Your task to perform on an android device: Open network settings Image 0: 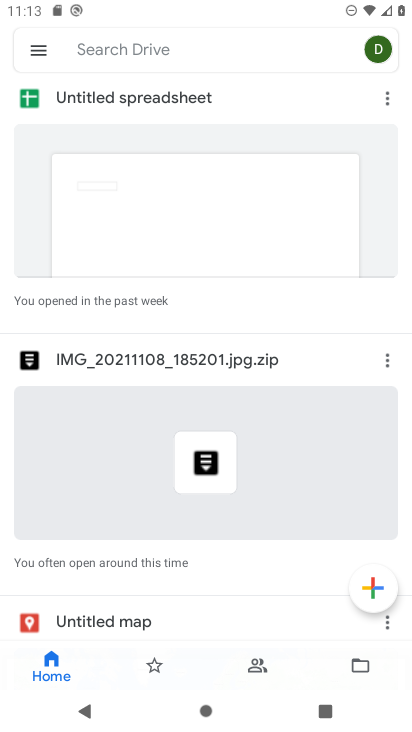
Step 0: press home button
Your task to perform on an android device: Open network settings Image 1: 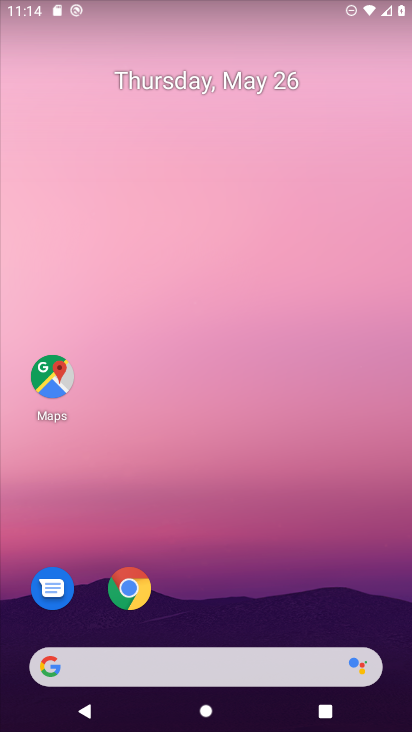
Step 1: drag from (382, 627) to (282, 72)
Your task to perform on an android device: Open network settings Image 2: 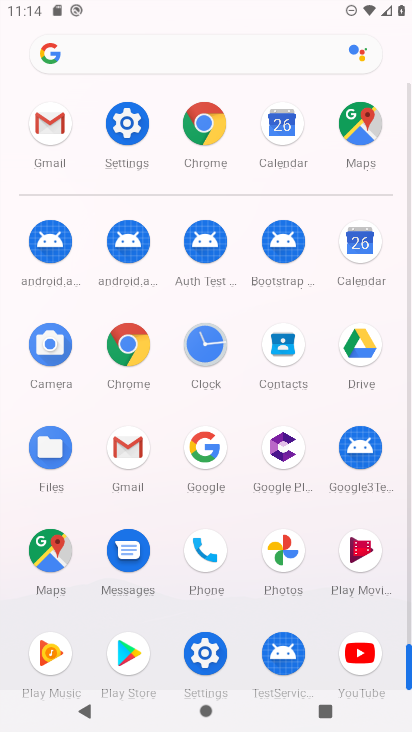
Step 2: click (408, 631)
Your task to perform on an android device: Open network settings Image 3: 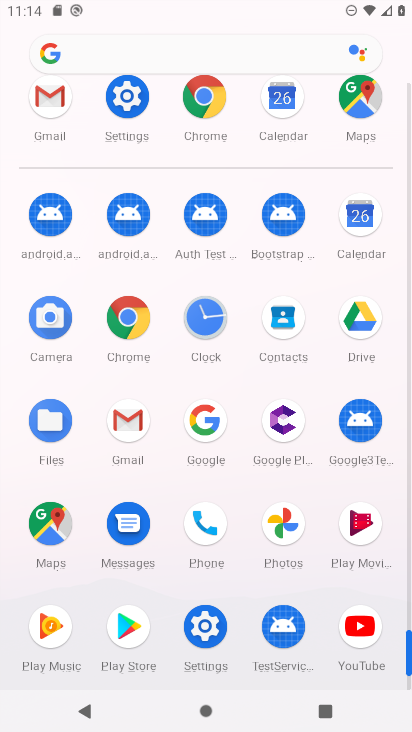
Step 3: click (208, 627)
Your task to perform on an android device: Open network settings Image 4: 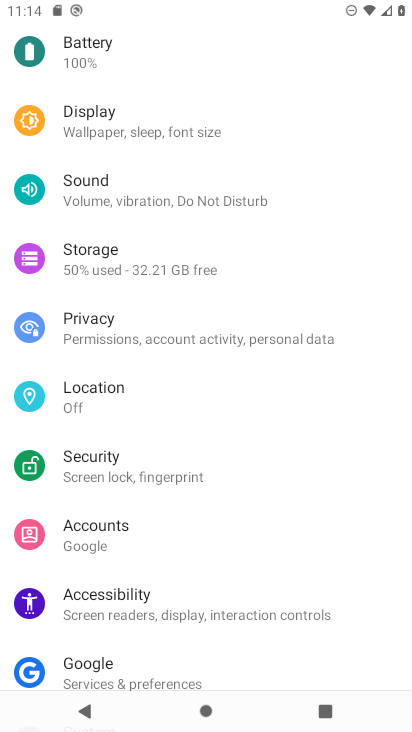
Step 4: drag from (341, 88) to (343, 417)
Your task to perform on an android device: Open network settings Image 5: 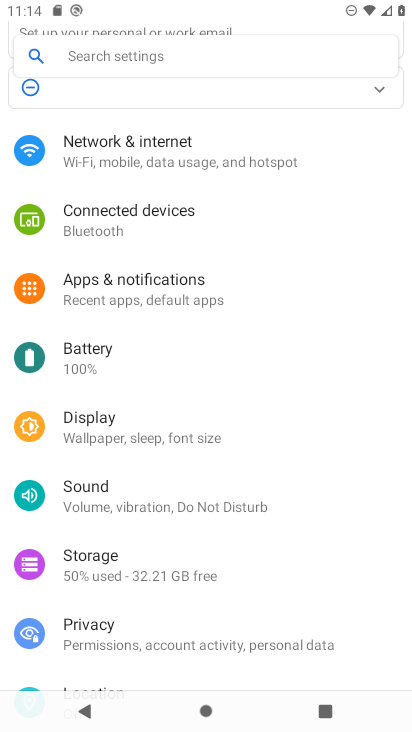
Step 5: click (103, 150)
Your task to perform on an android device: Open network settings Image 6: 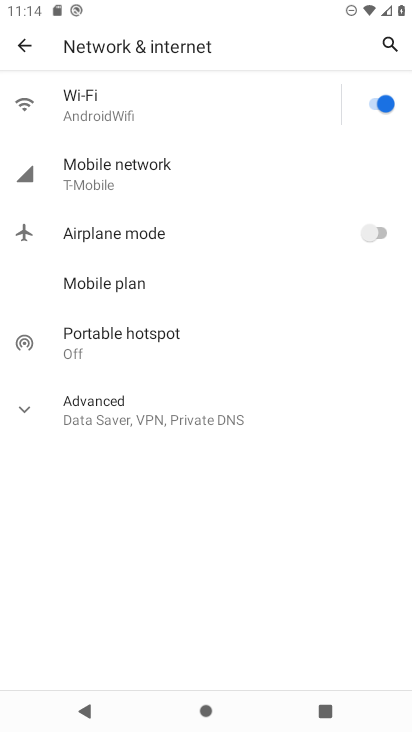
Step 6: click (108, 164)
Your task to perform on an android device: Open network settings Image 7: 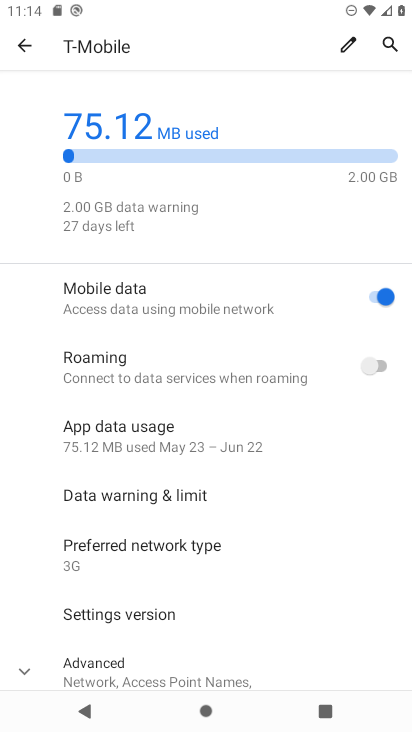
Step 7: task complete